Your task to perform on an android device: When is my next appointment? Image 0: 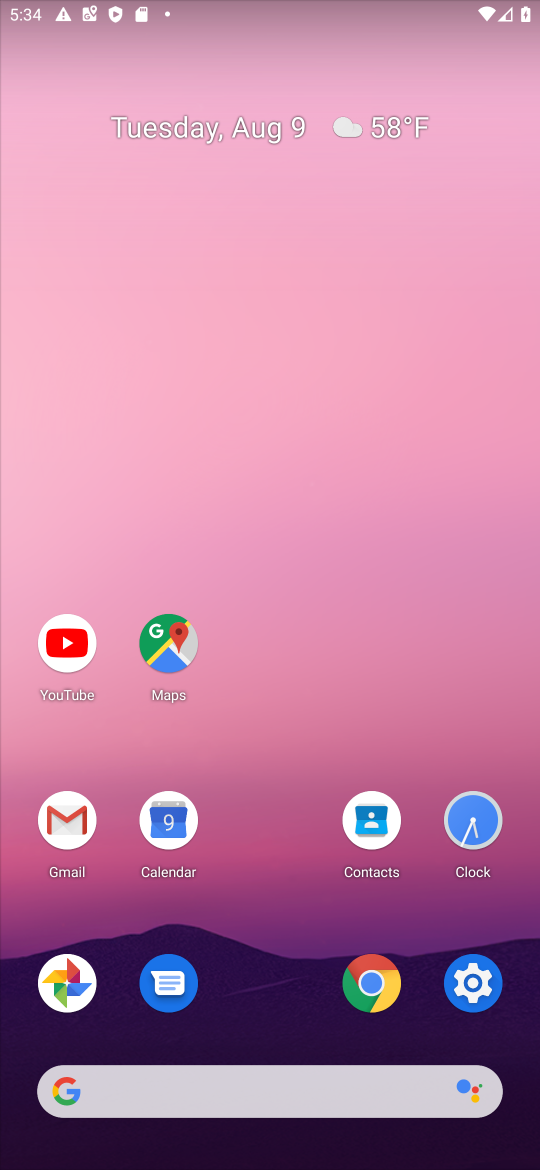
Step 0: click (166, 813)
Your task to perform on an android device: When is my next appointment? Image 1: 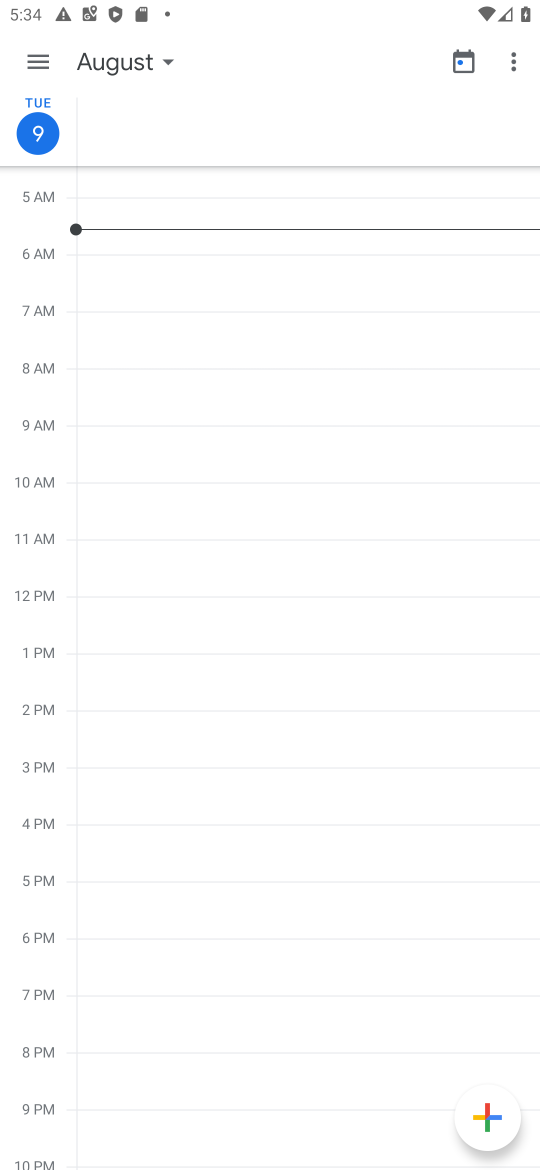
Step 1: task complete